Your task to perform on an android device: Open Android settings Image 0: 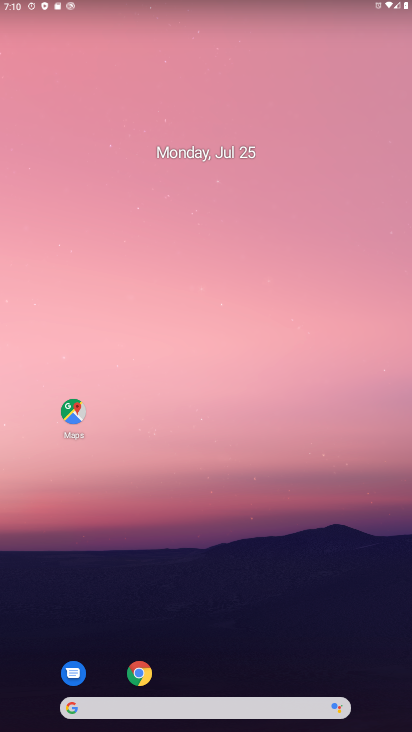
Step 0: drag from (350, 666) to (216, 131)
Your task to perform on an android device: Open Android settings Image 1: 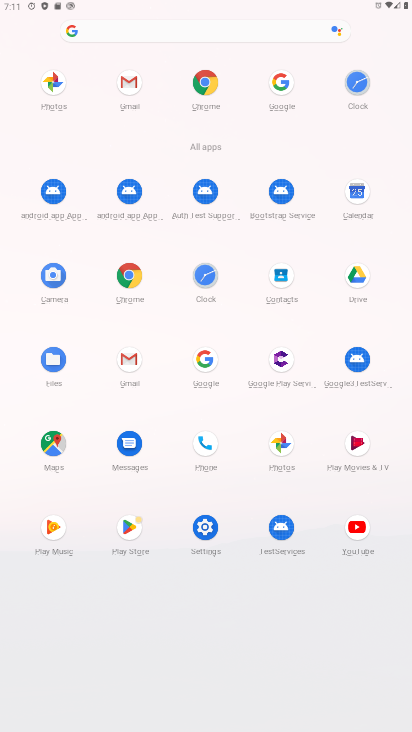
Step 1: click (204, 534)
Your task to perform on an android device: Open Android settings Image 2: 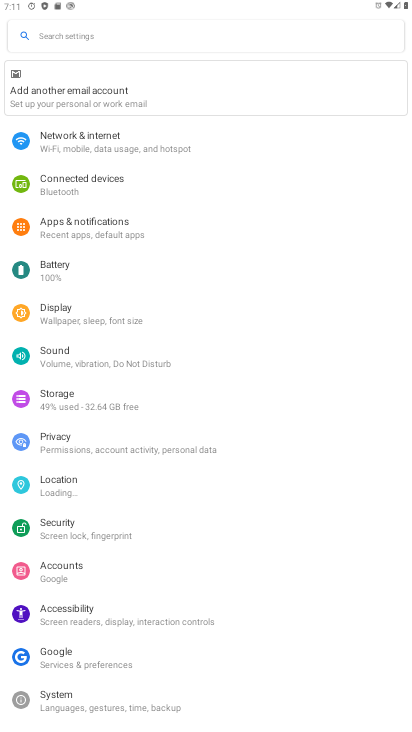
Step 2: task complete